Your task to perform on an android device: Go to Google Image 0: 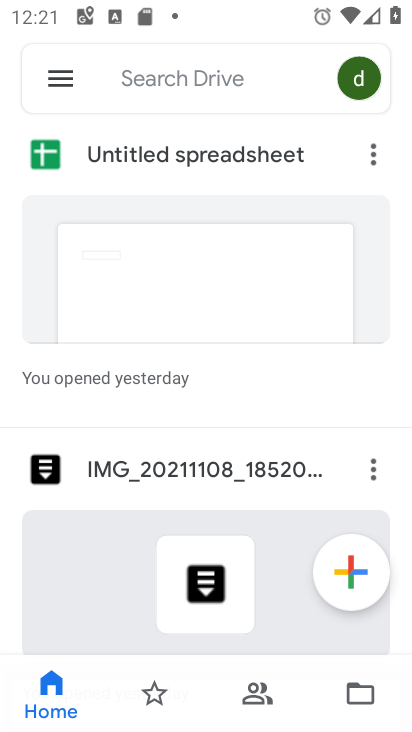
Step 0: press home button
Your task to perform on an android device: Go to Google Image 1: 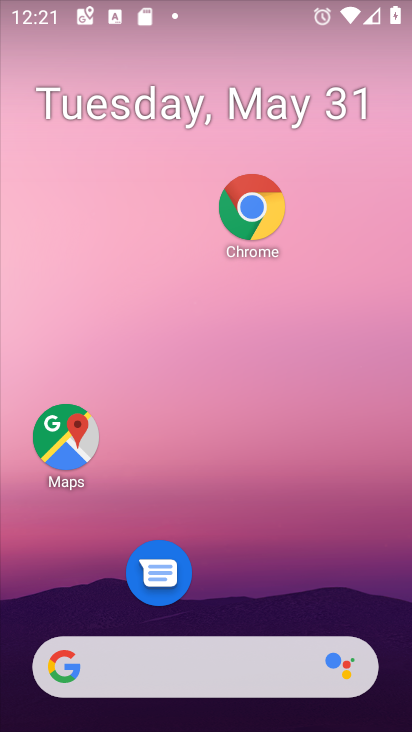
Step 1: drag from (185, 692) to (218, 70)
Your task to perform on an android device: Go to Google Image 2: 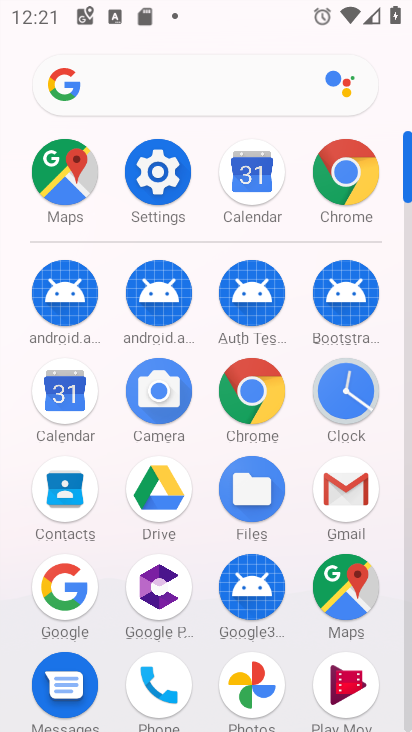
Step 2: click (62, 585)
Your task to perform on an android device: Go to Google Image 3: 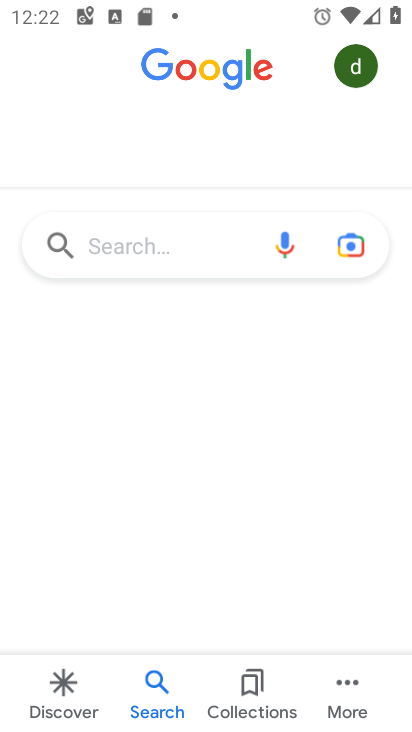
Step 3: task complete